Your task to perform on an android device: How much does a 3 bedroom apartment rent for in Dallas? Image 0: 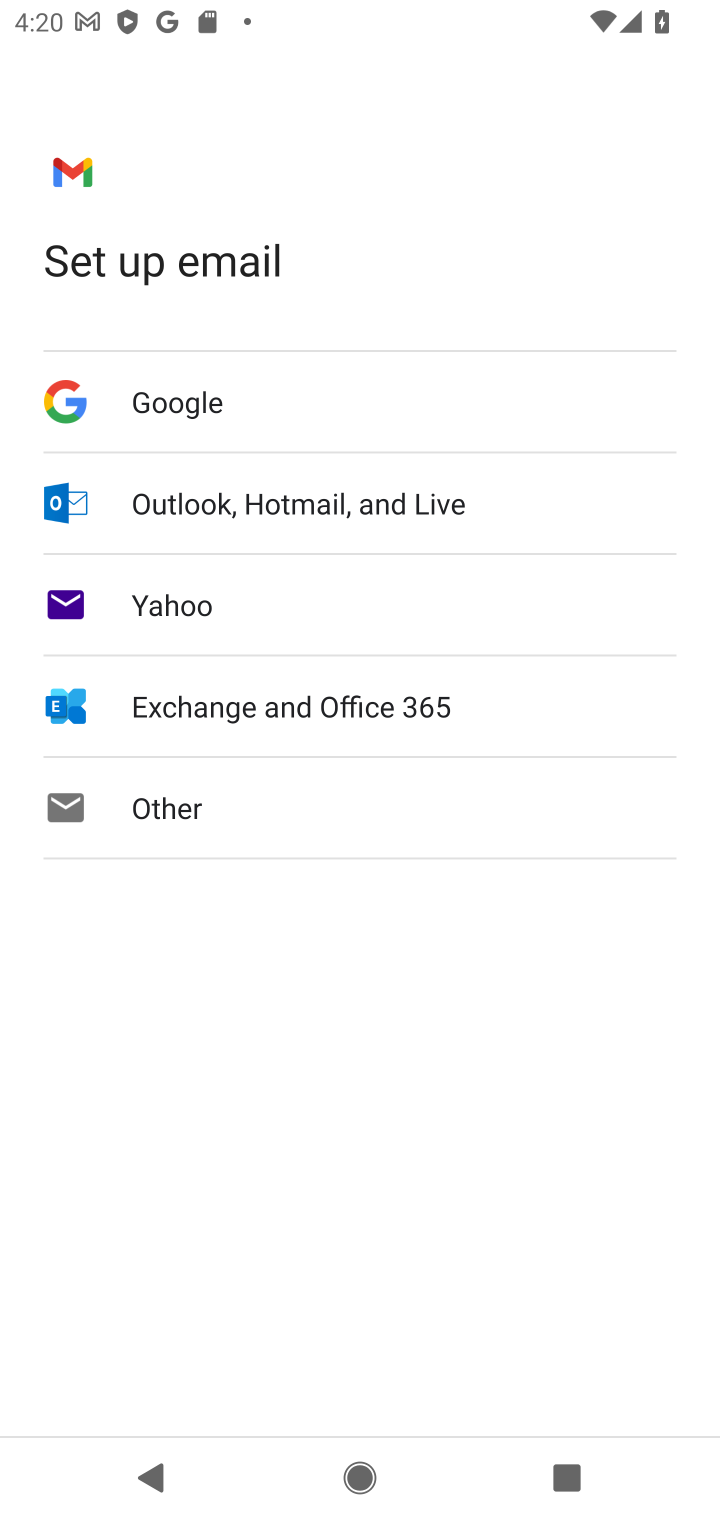
Step 0: press home button
Your task to perform on an android device: How much does a 3 bedroom apartment rent for in Dallas? Image 1: 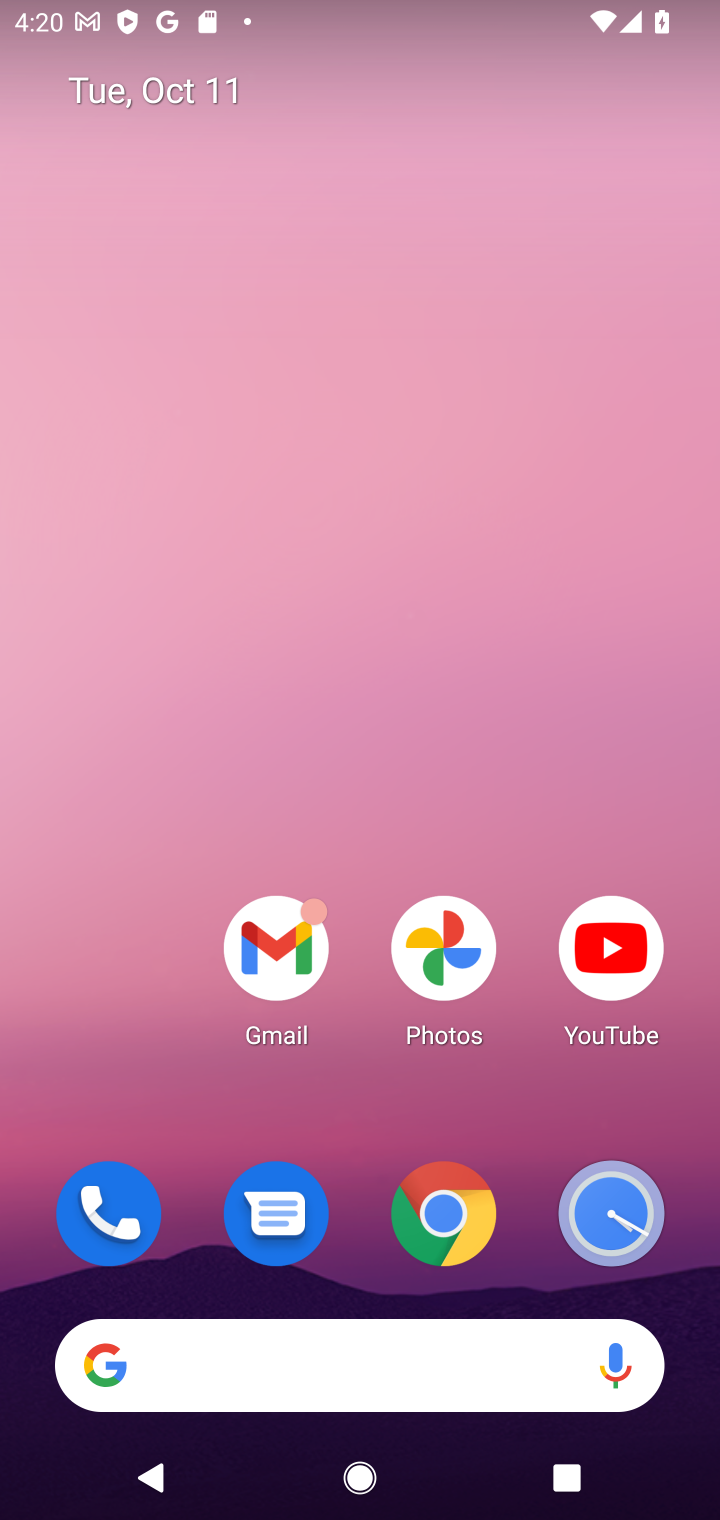
Step 1: click (429, 1226)
Your task to perform on an android device: How much does a 3 bedroom apartment rent for in Dallas? Image 2: 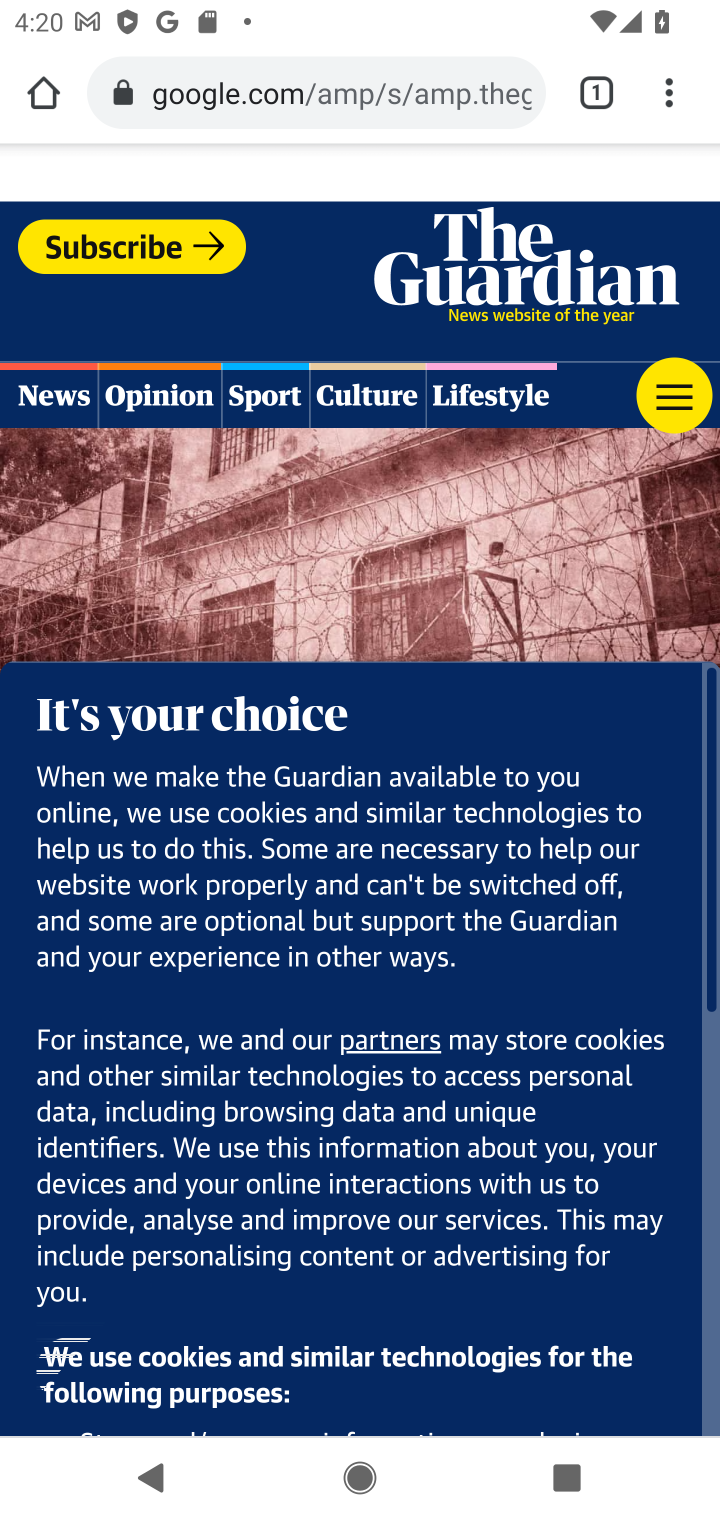
Step 2: click (266, 89)
Your task to perform on an android device: How much does a 3 bedroom apartment rent for in Dallas? Image 3: 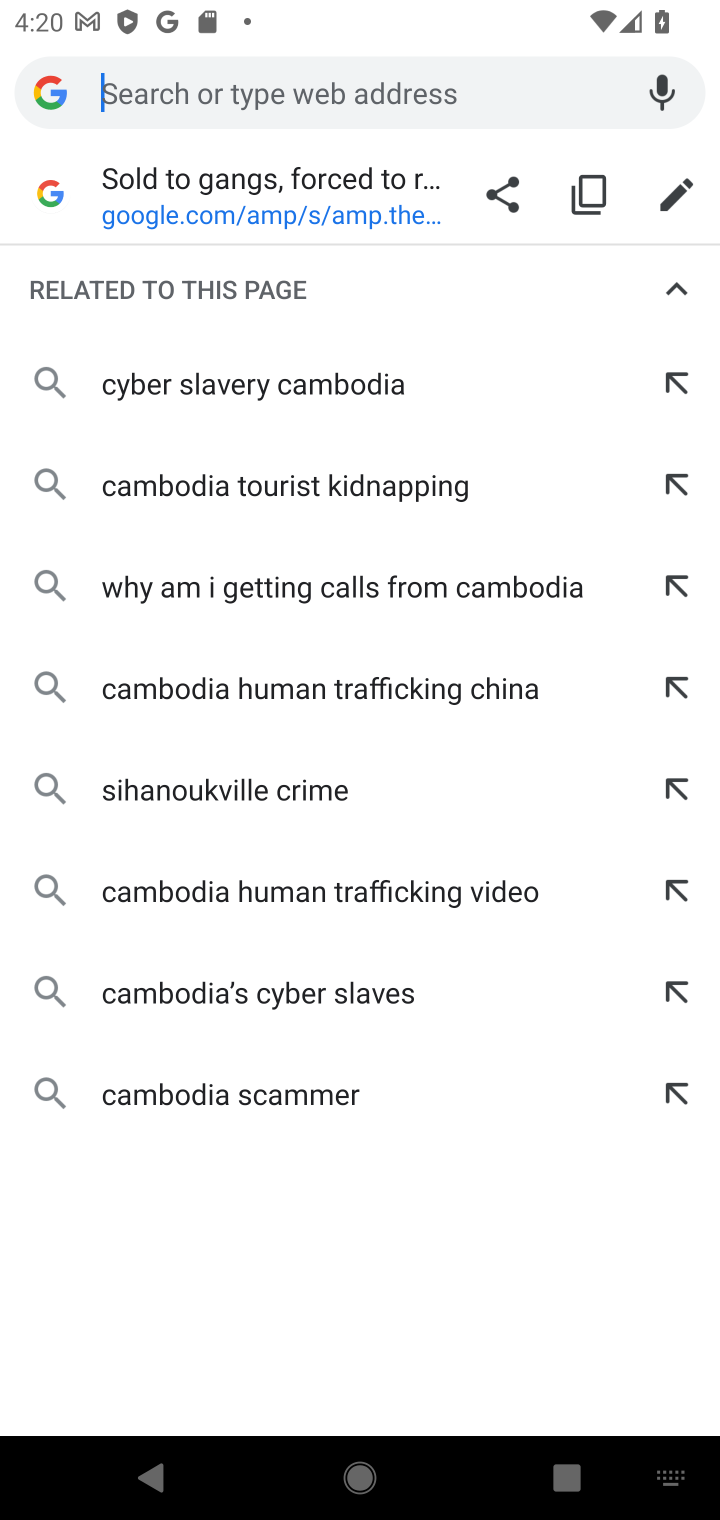
Step 3: type "rent for 3 bedroom apartment in dallas"
Your task to perform on an android device: How much does a 3 bedroom apartment rent for in Dallas? Image 4: 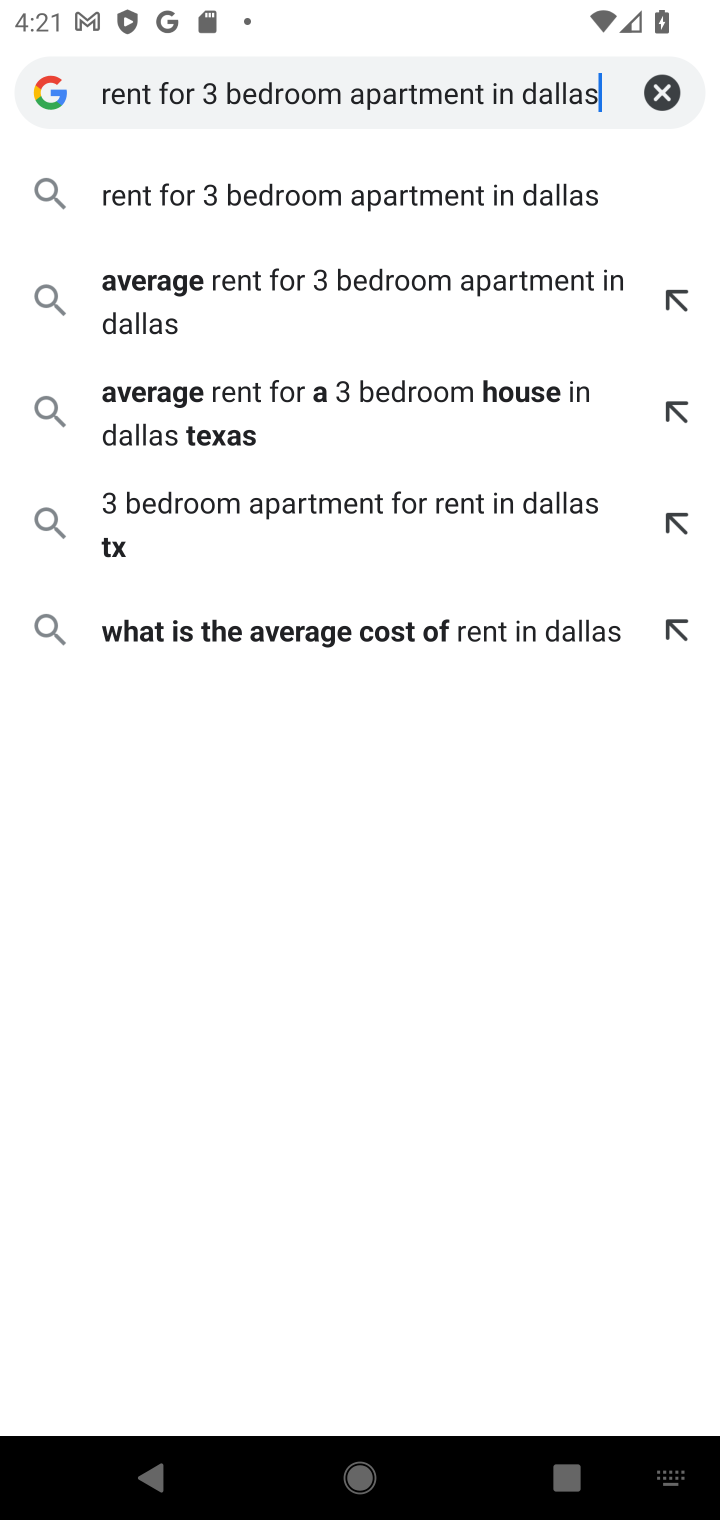
Step 4: click (343, 204)
Your task to perform on an android device: How much does a 3 bedroom apartment rent for in Dallas? Image 5: 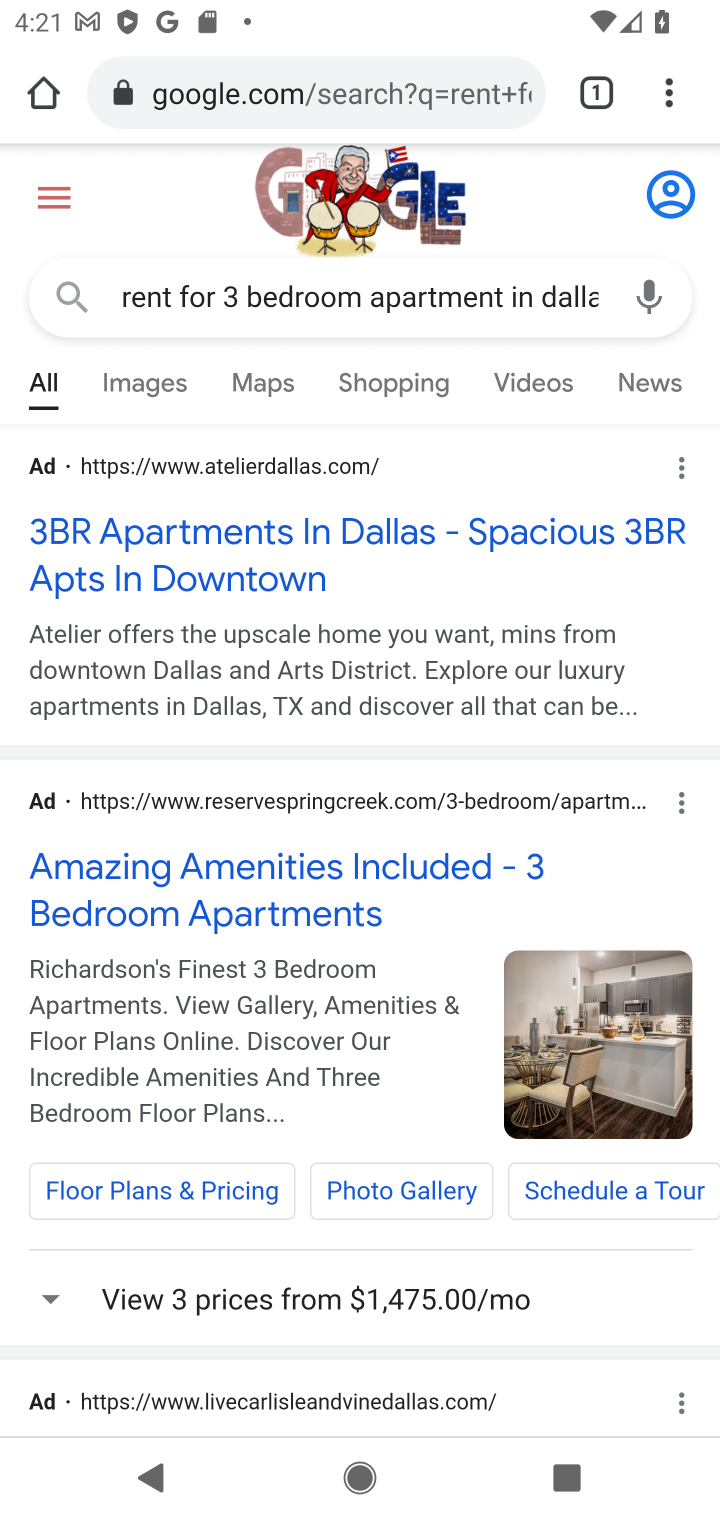
Step 5: click (180, 584)
Your task to perform on an android device: How much does a 3 bedroom apartment rent for in Dallas? Image 6: 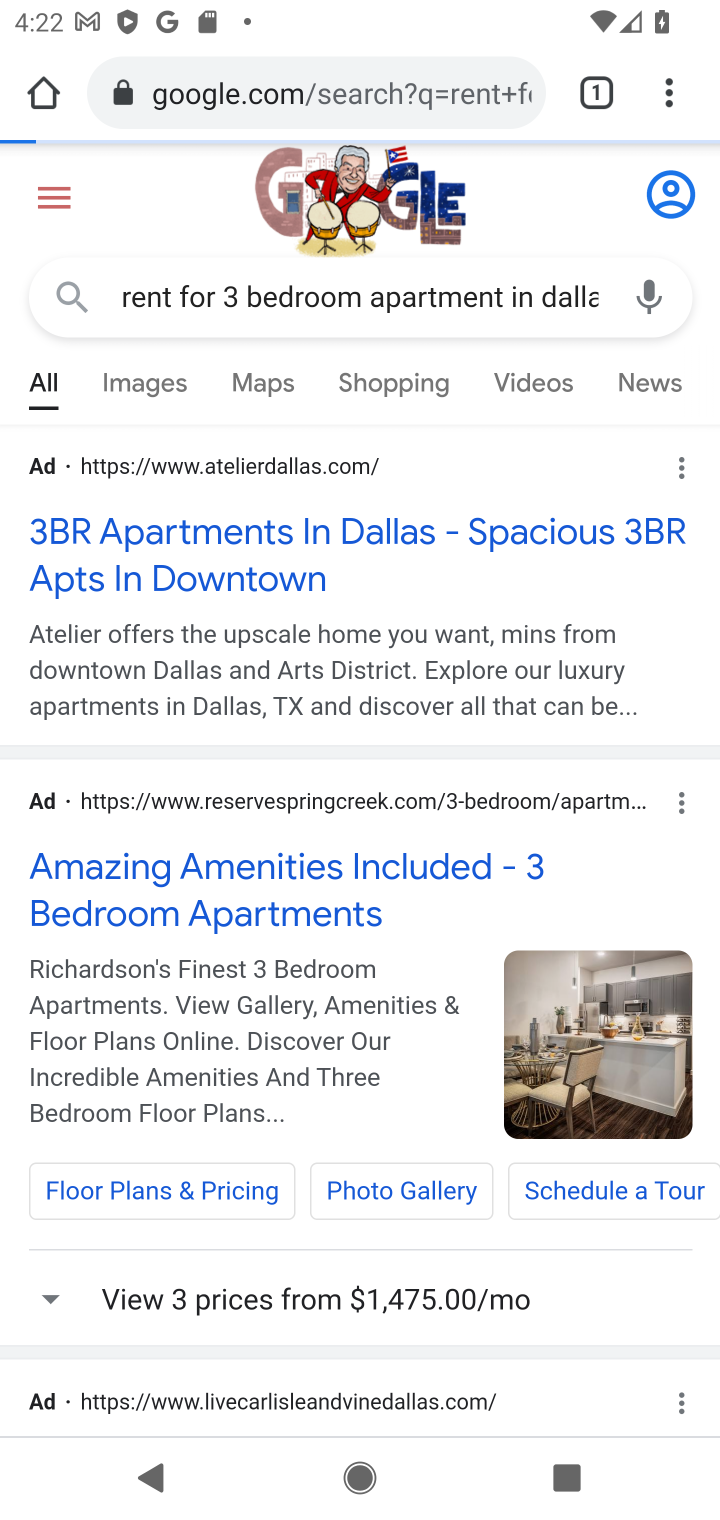
Step 6: drag from (216, 922) to (226, 569)
Your task to perform on an android device: How much does a 3 bedroom apartment rent for in Dallas? Image 7: 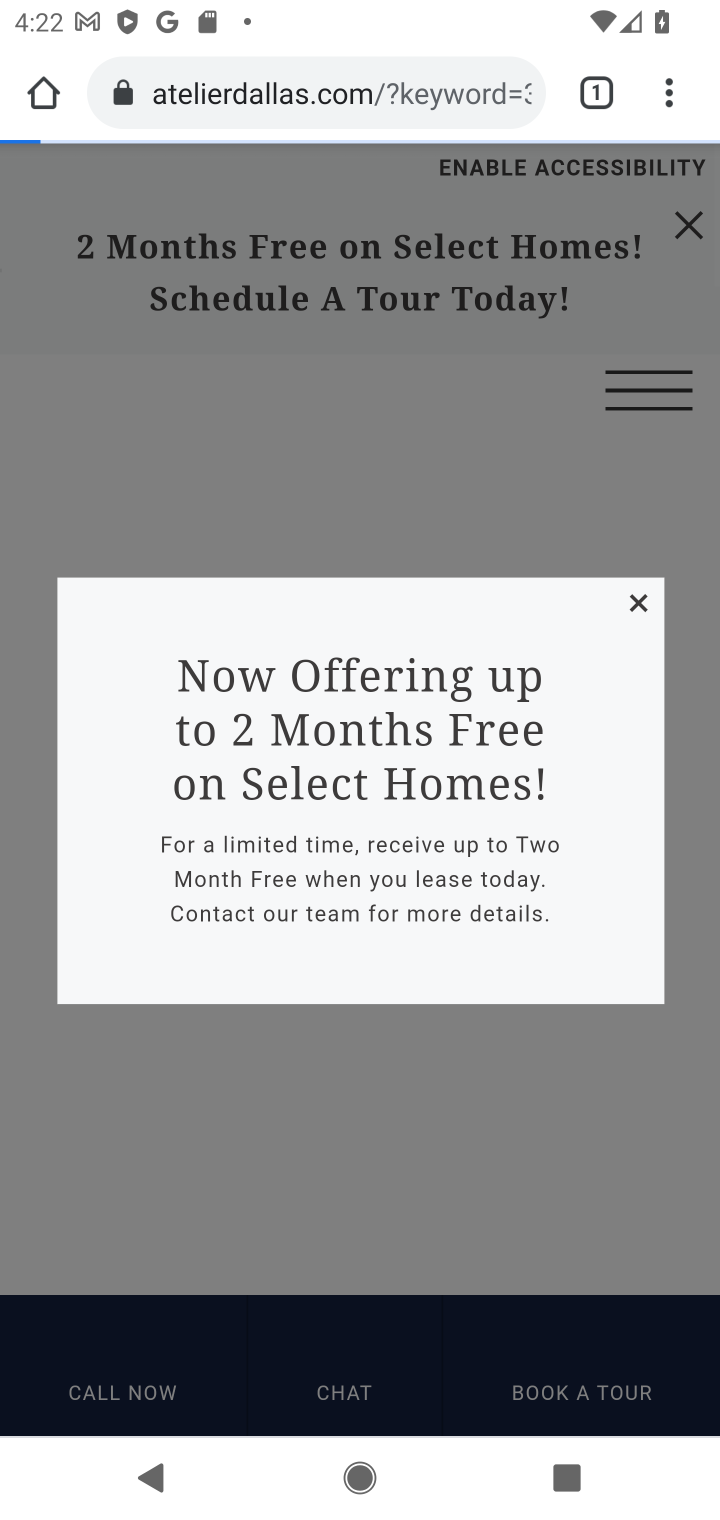
Step 7: click (223, 961)
Your task to perform on an android device: How much does a 3 bedroom apartment rent for in Dallas? Image 8: 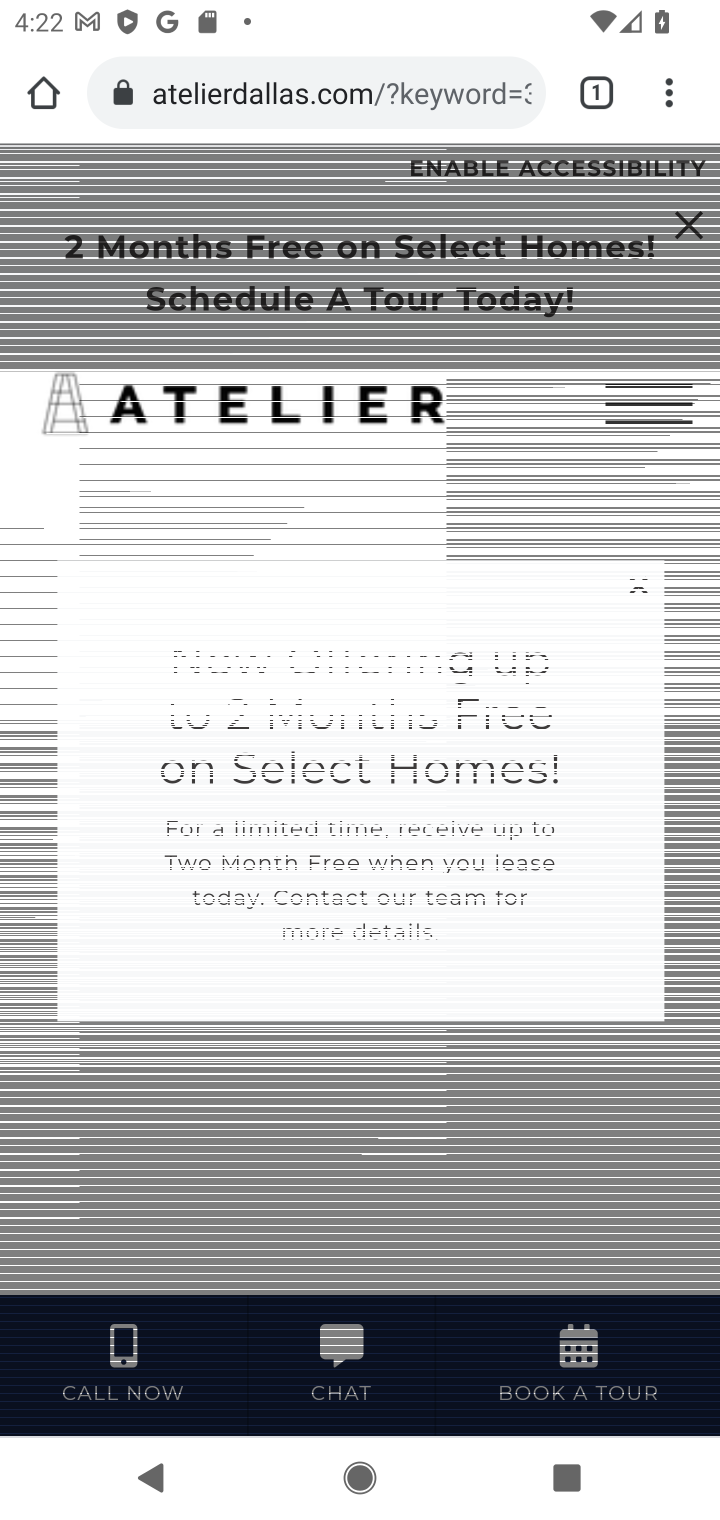
Step 8: press back button
Your task to perform on an android device: How much does a 3 bedroom apartment rent for in Dallas? Image 9: 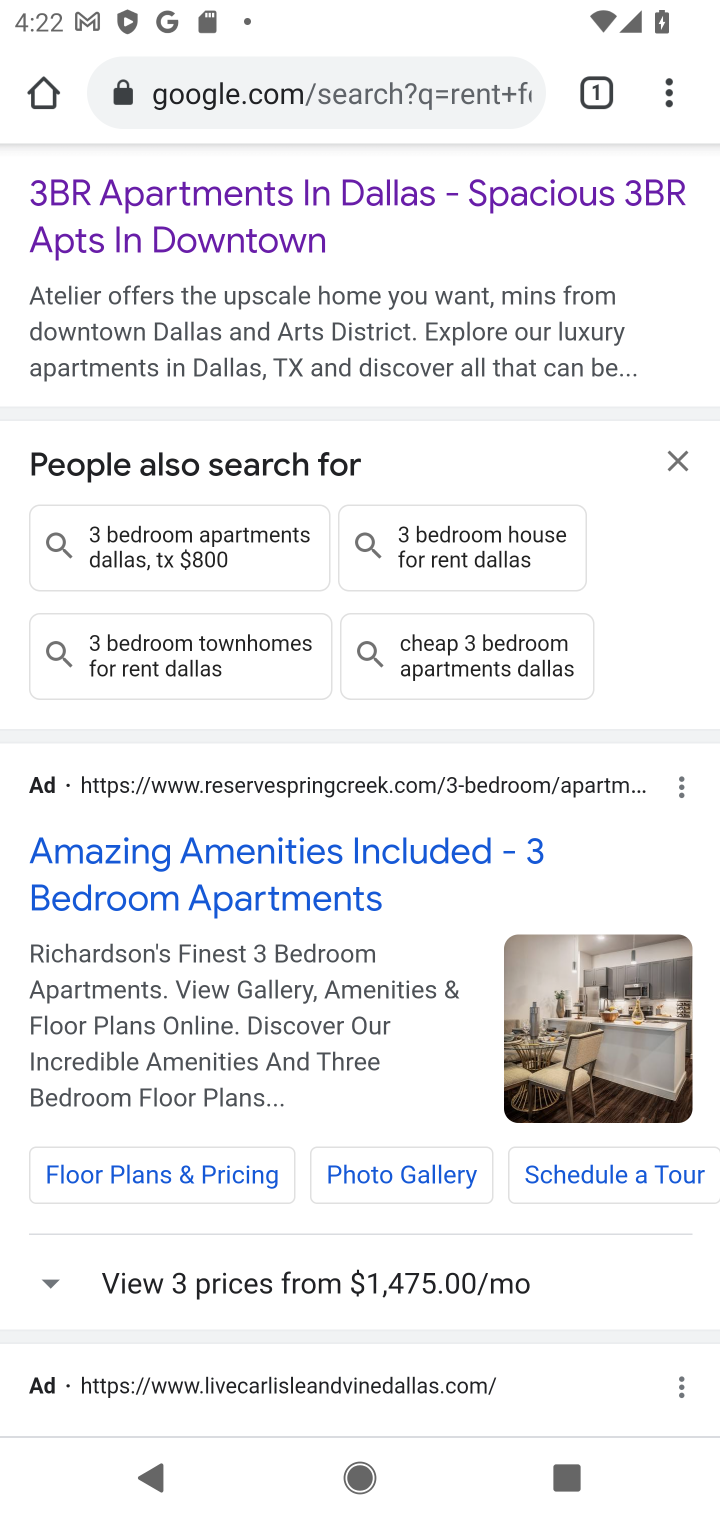
Step 9: click (144, 558)
Your task to perform on an android device: How much does a 3 bedroom apartment rent for in Dallas? Image 10: 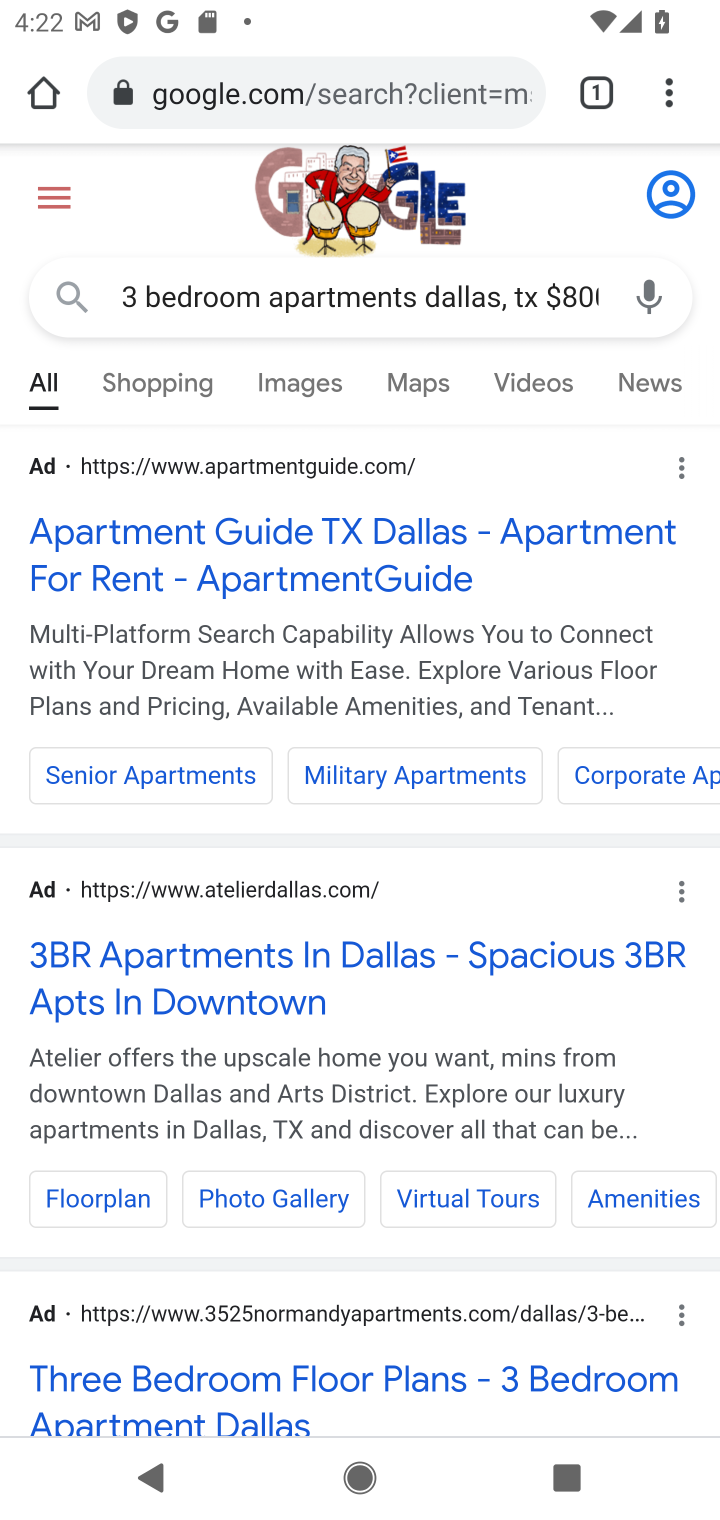
Step 10: drag from (228, 927) to (241, 755)
Your task to perform on an android device: How much does a 3 bedroom apartment rent for in Dallas? Image 11: 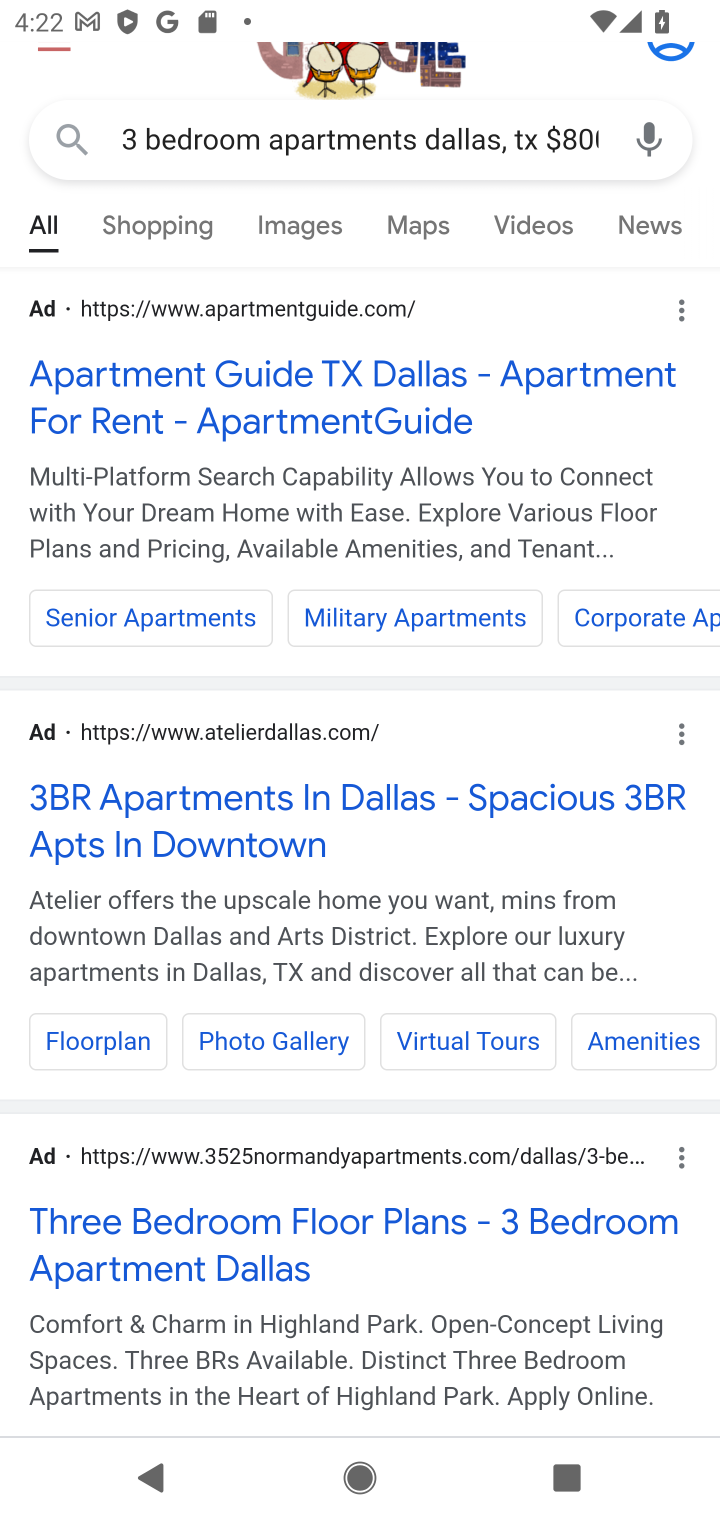
Step 11: click (145, 418)
Your task to perform on an android device: How much does a 3 bedroom apartment rent for in Dallas? Image 12: 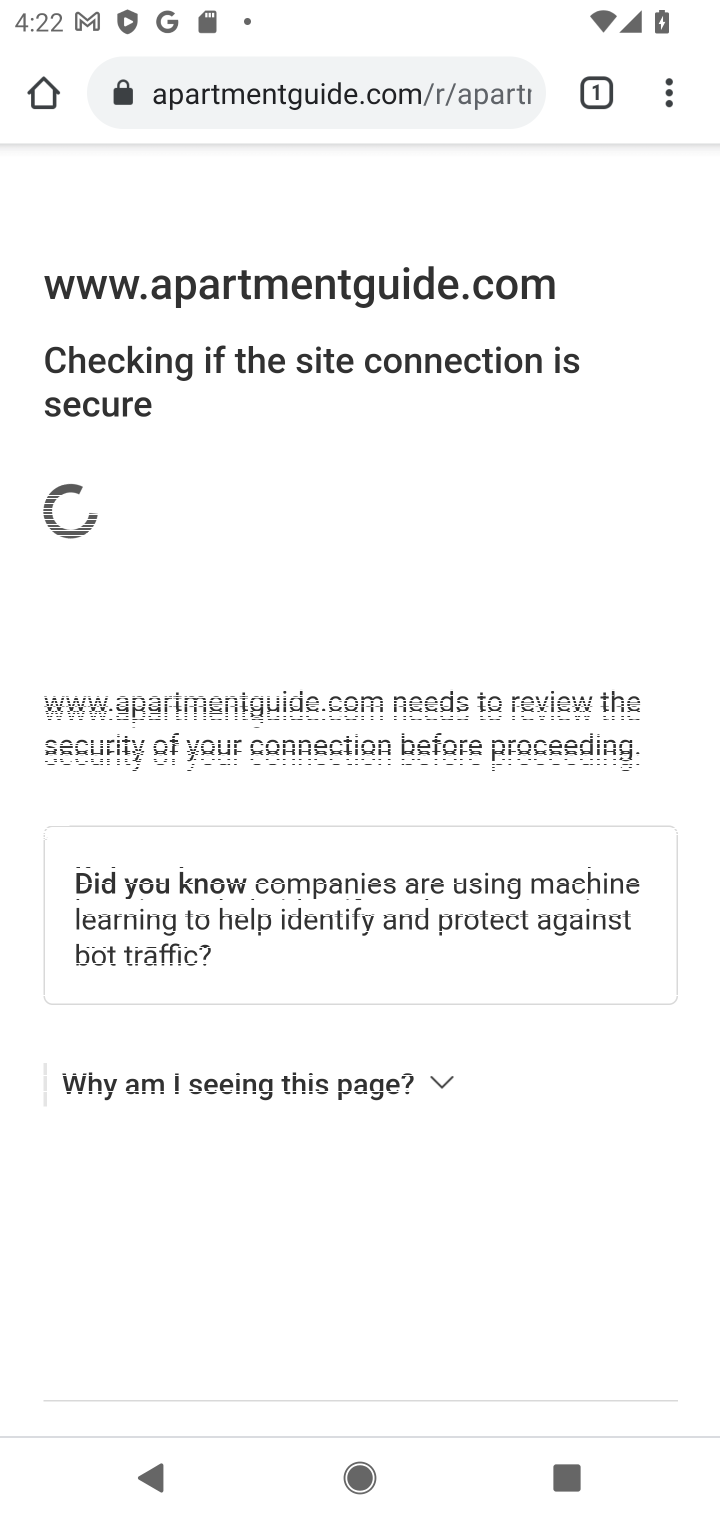
Step 12: drag from (493, 1070) to (470, 551)
Your task to perform on an android device: How much does a 3 bedroom apartment rent for in Dallas? Image 13: 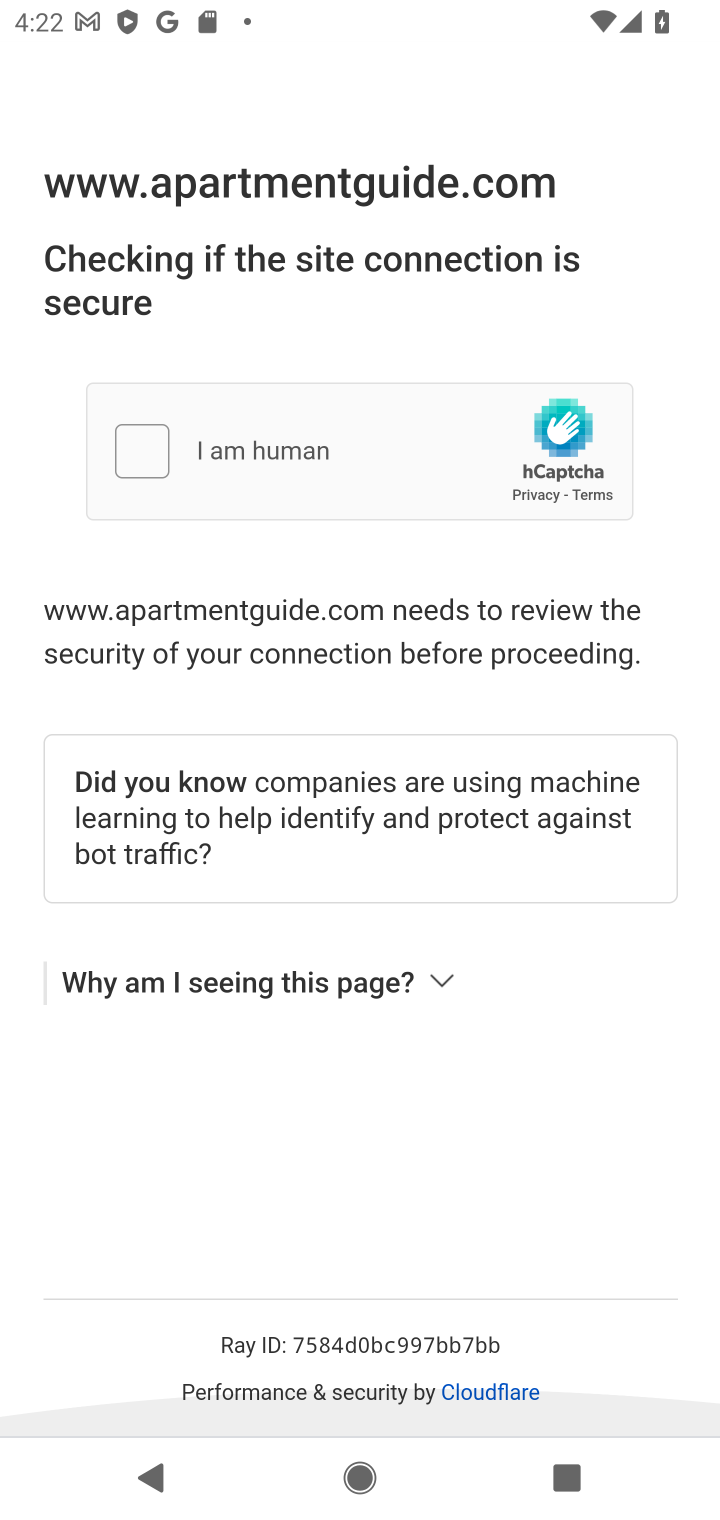
Step 13: drag from (325, 1129) to (337, 472)
Your task to perform on an android device: How much does a 3 bedroom apartment rent for in Dallas? Image 14: 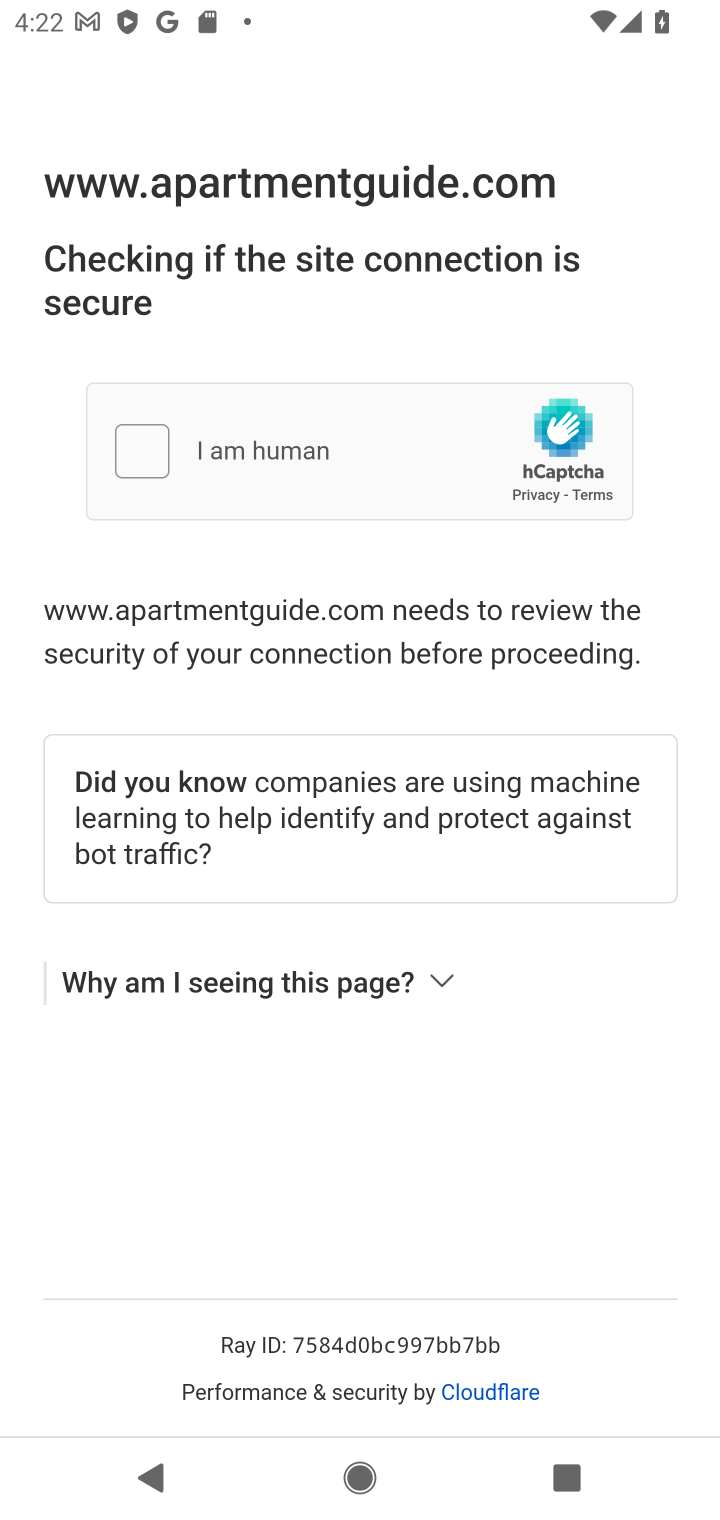
Step 14: click (127, 456)
Your task to perform on an android device: How much does a 3 bedroom apartment rent for in Dallas? Image 15: 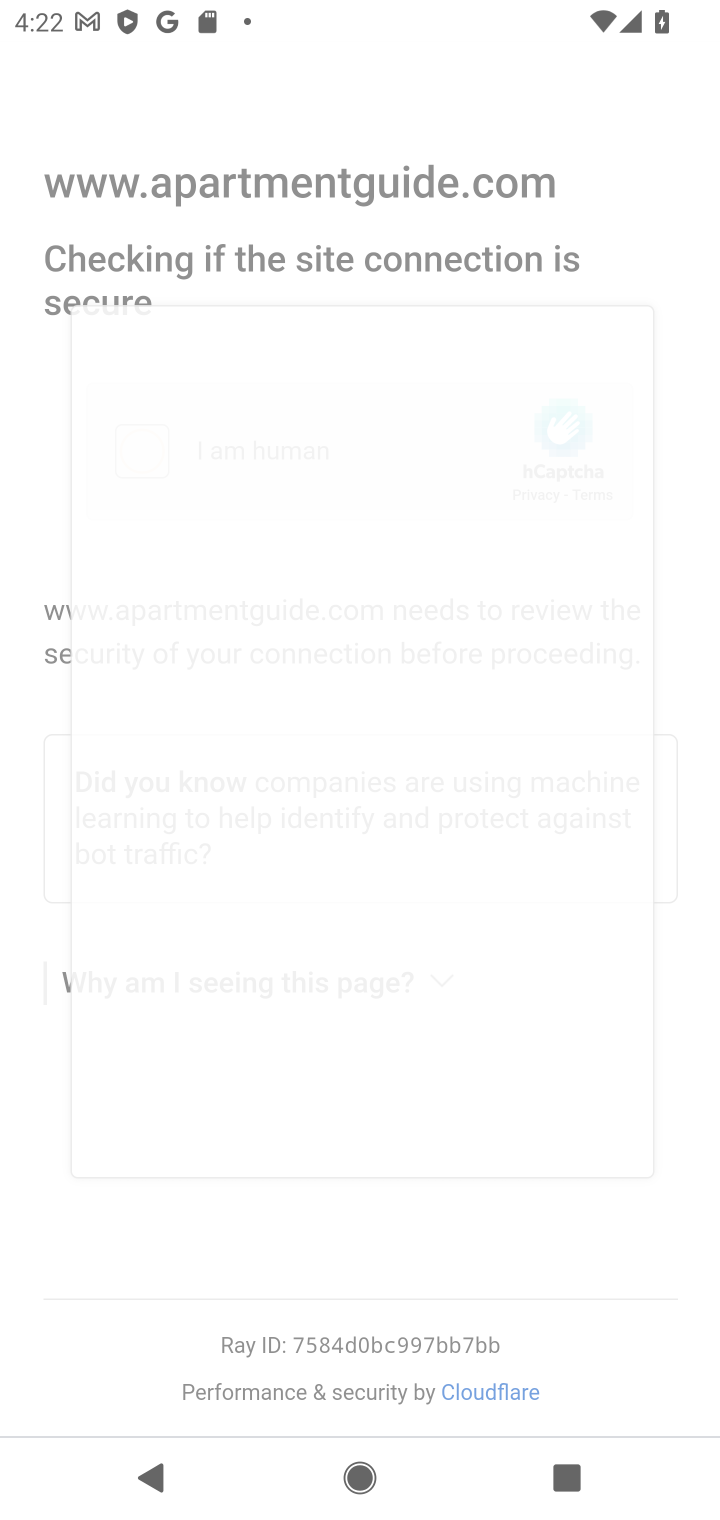
Step 15: drag from (485, 1066) to (487, 474)
Your task to perform on an android device: How much does a 3 bedroom apartment rent for in Dallas? Image 16: 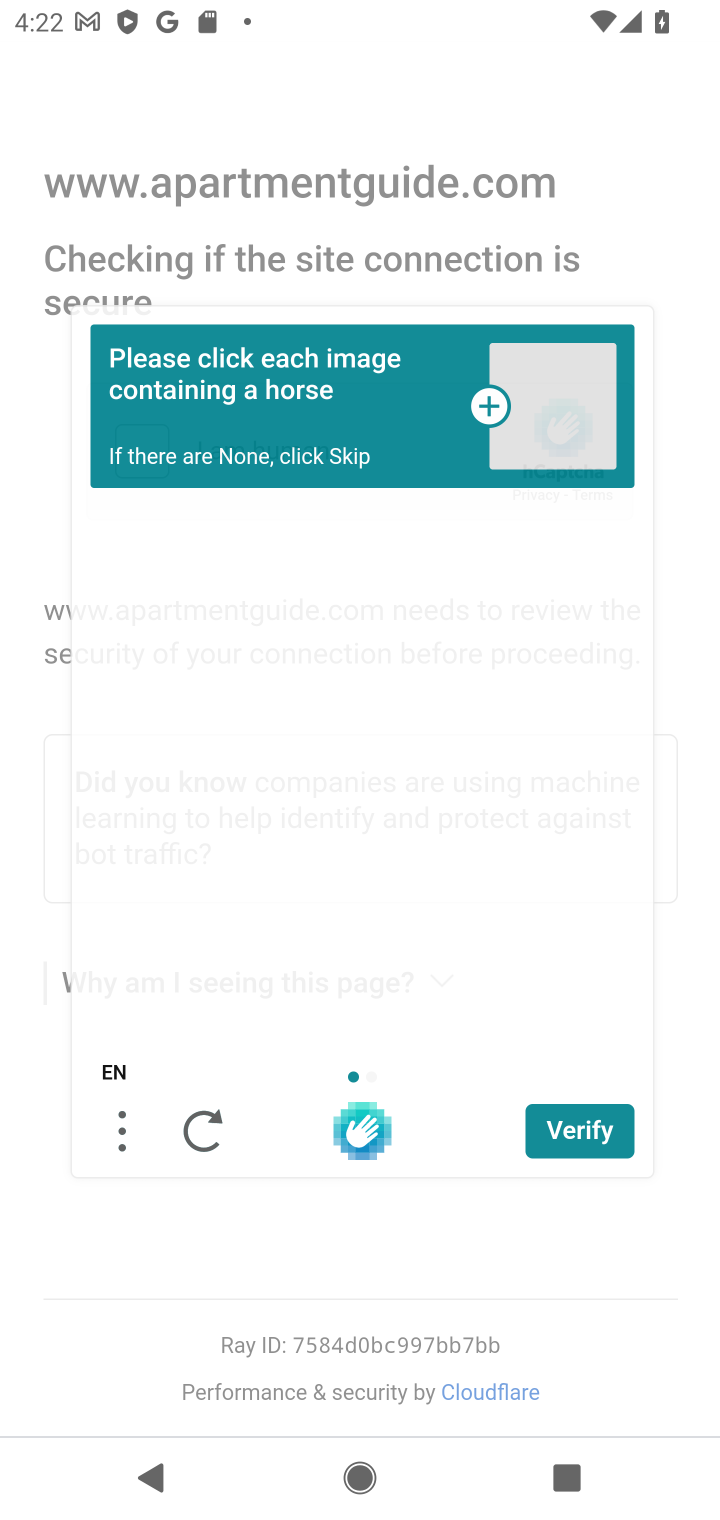
Step 16: drag from (322, 1193) to (297, 649)
Your task to perform on an android device: How much does a 3 bedroom apartment rent for in Dallas? Image 17: 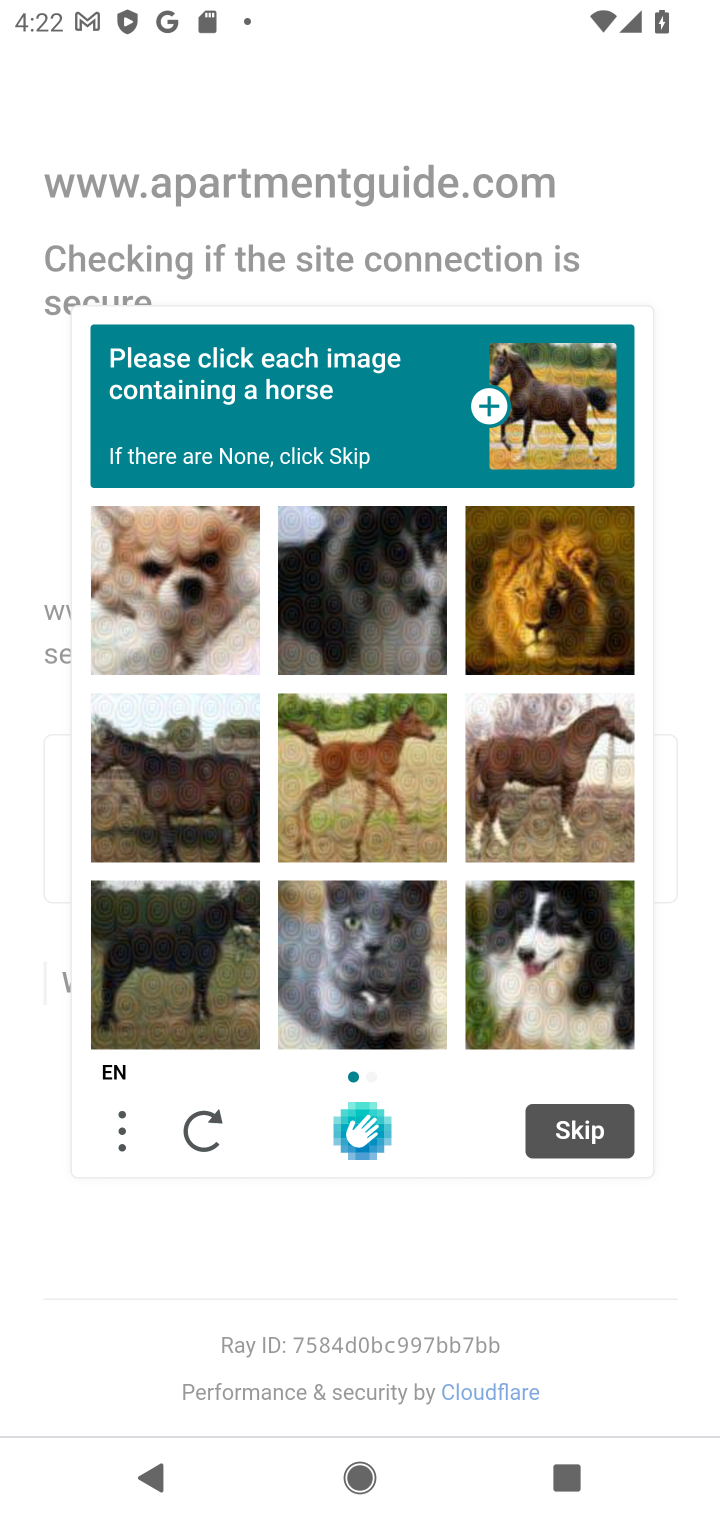
Step 17: click (564, 1144)
Your task to perform on an android device: How much does a 3 bedroom apartment rent for in Dallas? Image 18: 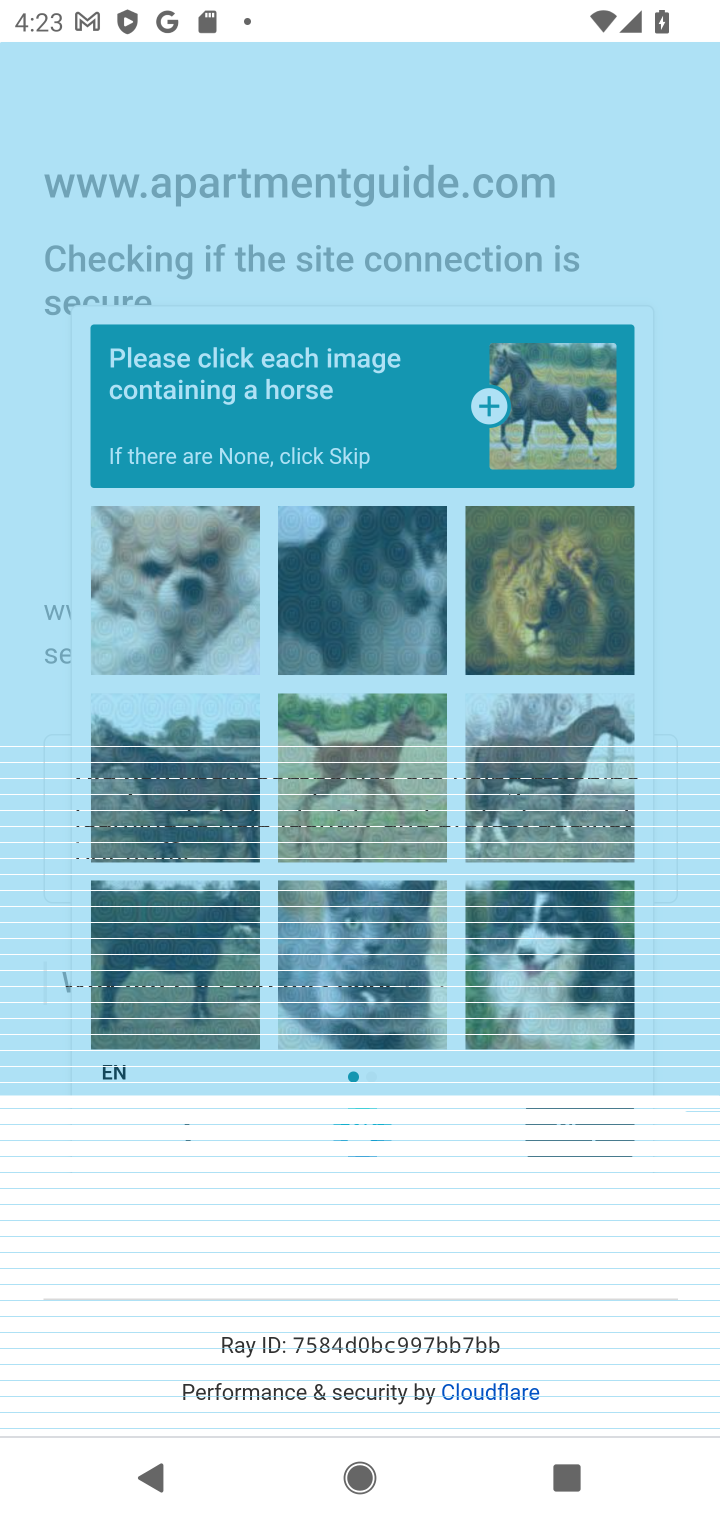
Step 18: press back button
Your task to perform on an android device: How much does a 3 bedroom apartment rent for in Dallas? Image 19: 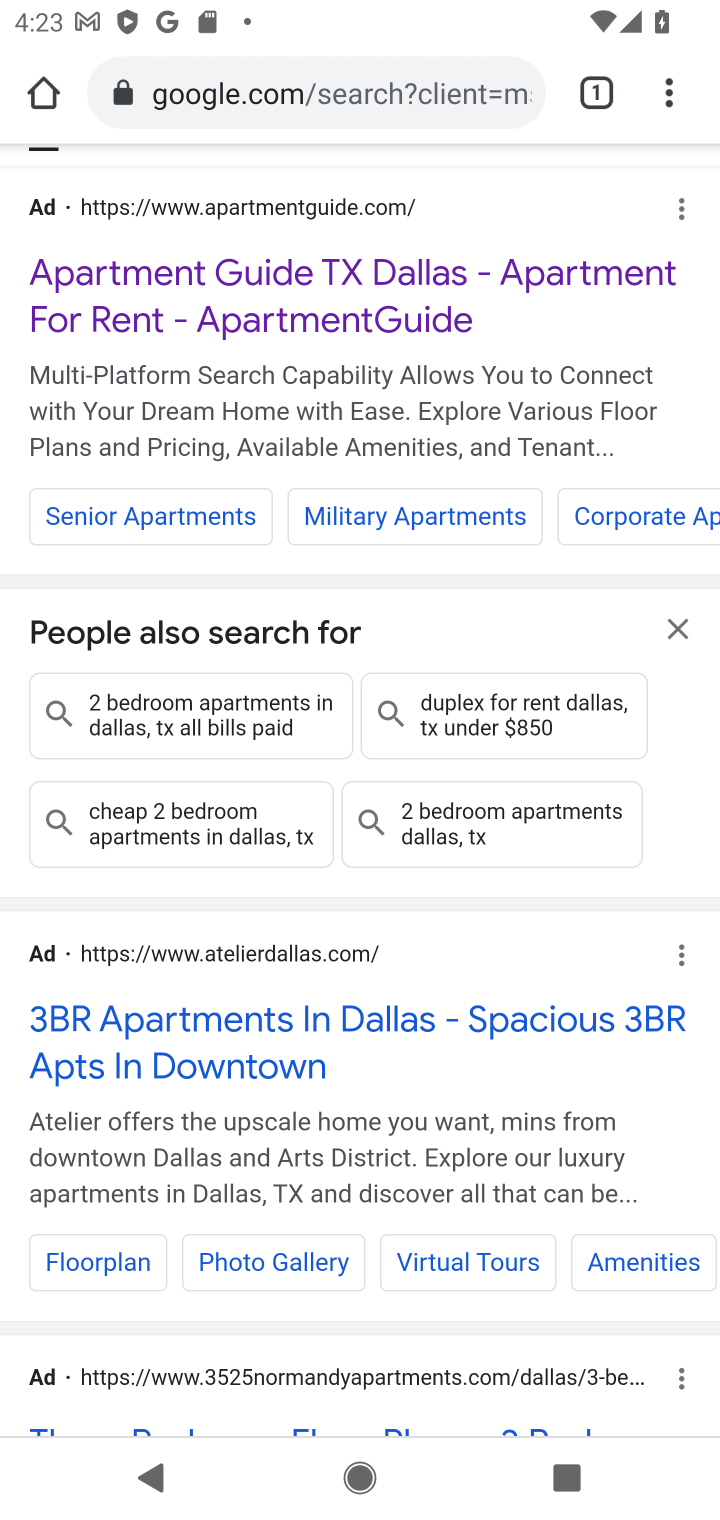
Step 19: click (203, 1069)
Your task to perform on an android device: How much does a 3 bedroom apartment rent for in Dallas? Image 20: 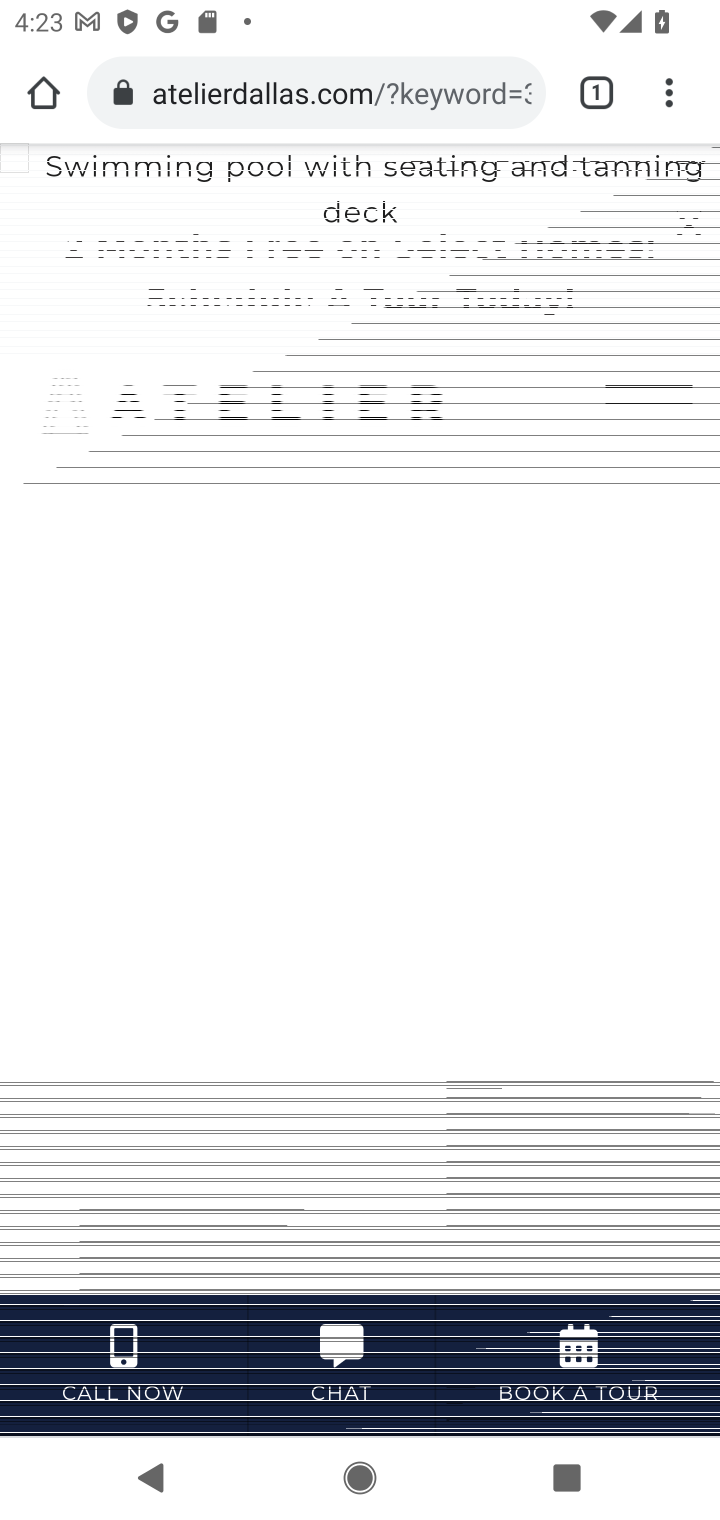
Step 20: click (639, 592)
Your task to perform on an android device: How much does a 3 bedroom apartment rent for in Dallas? Image 21: 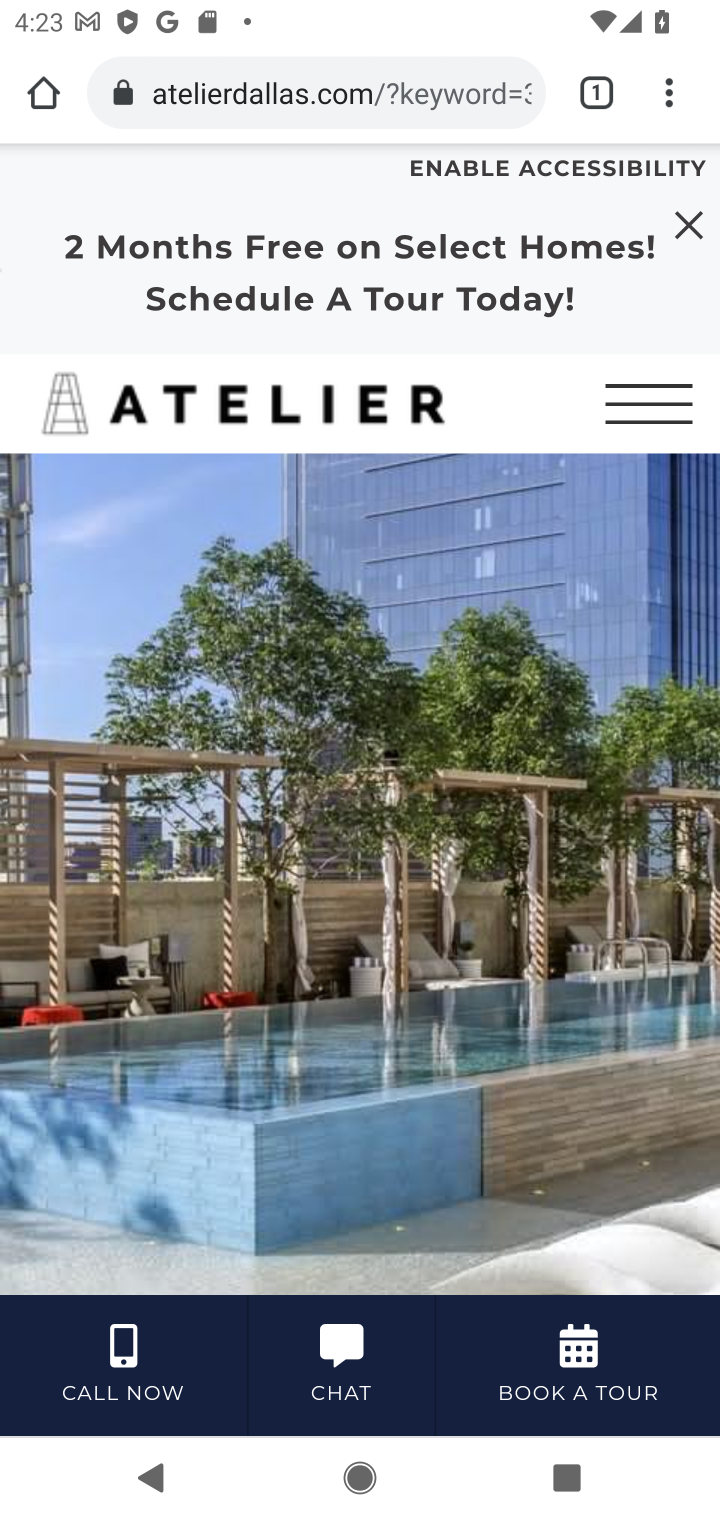
Step 21: drag from (533, 567) to (549, 306)
Your task to perform on an android device: How much does a 3 bedroom apartment rent for in Dallas? Image 22: 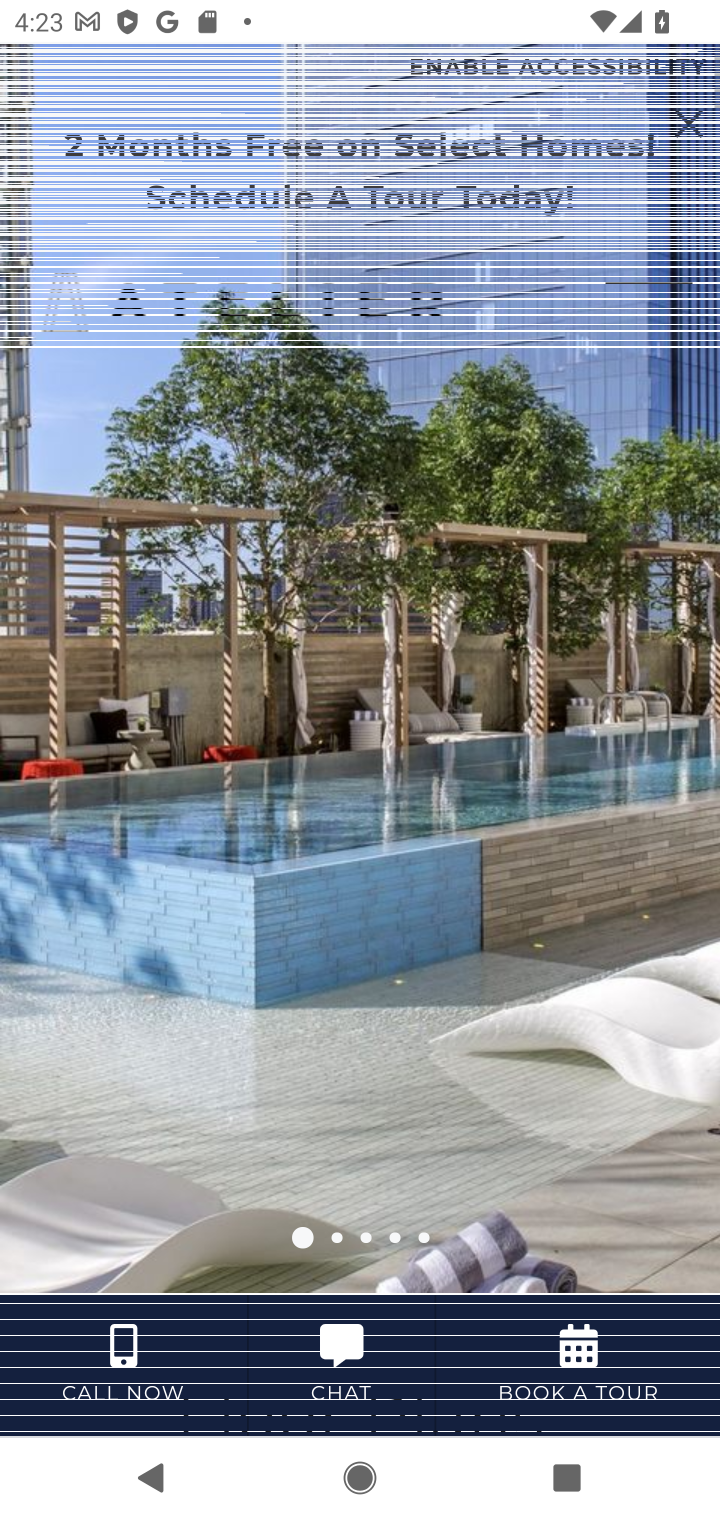
Step 22: drag from (217, 954) to (290, 214)
Your task to perform on an android device: How much does a 3 bedroom apartment rent for in Dallas? Image 23: 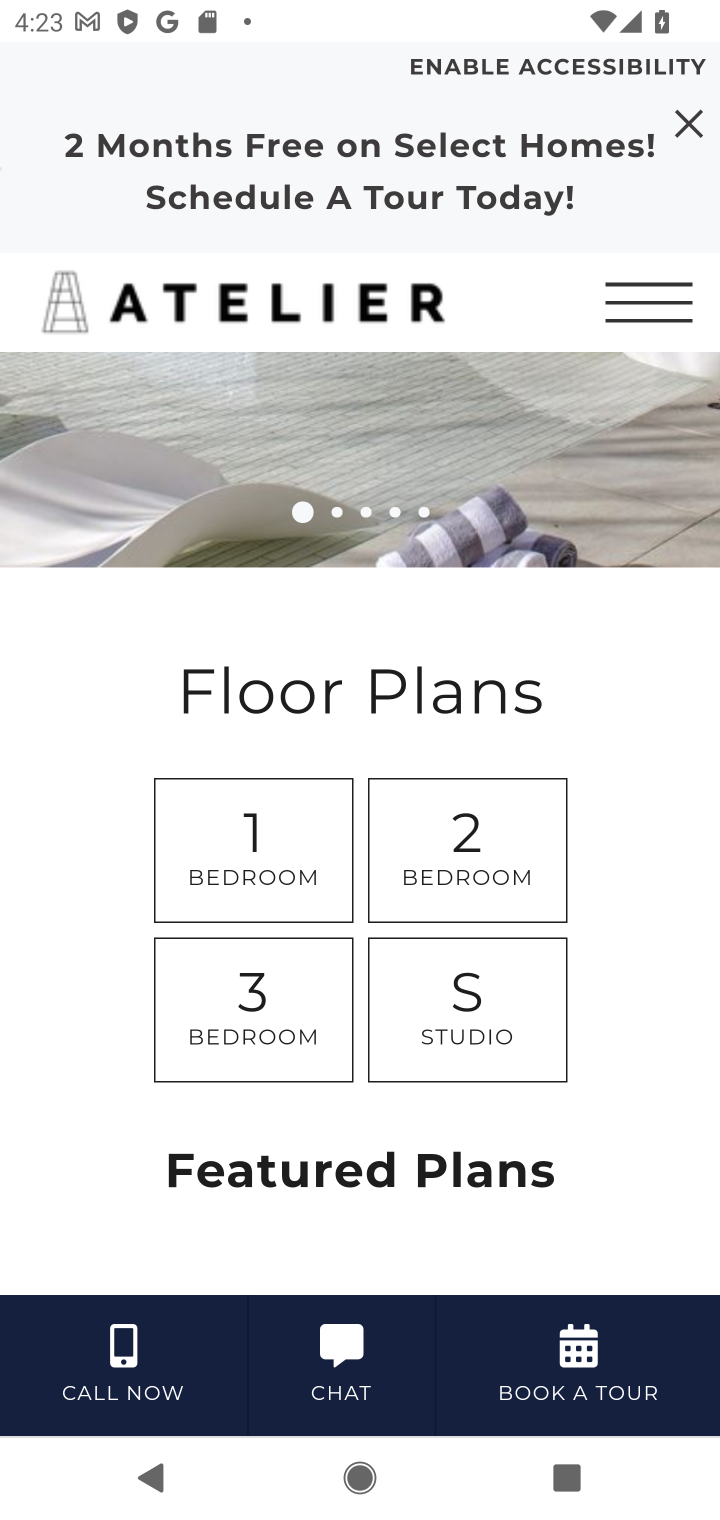
Step 23: click (259, 1030)
Your task to perform on an android device: How much does a 3 bedroom apartment rent for in Dallas? Image 24: 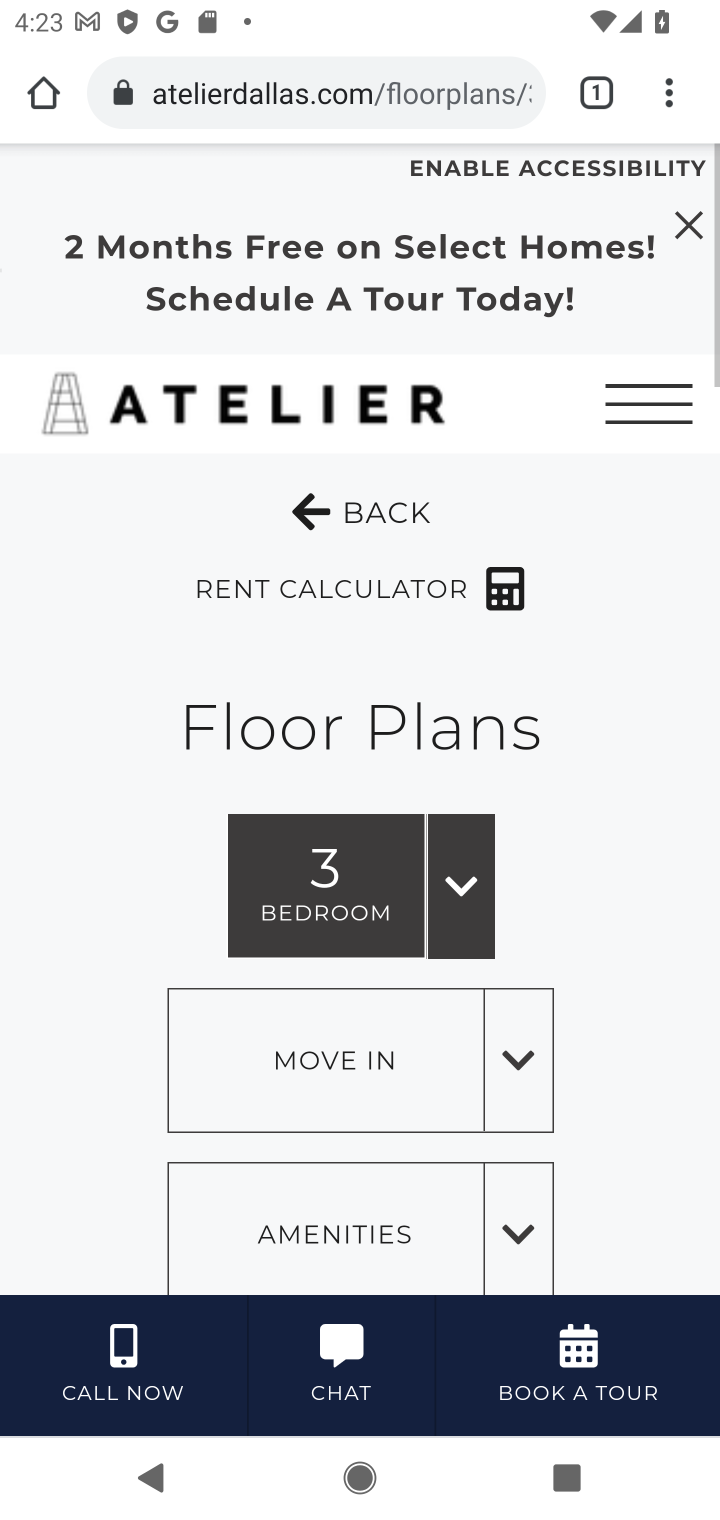
Step 24: task complete